Your task to perform on an android device: Open location settings Image 0: 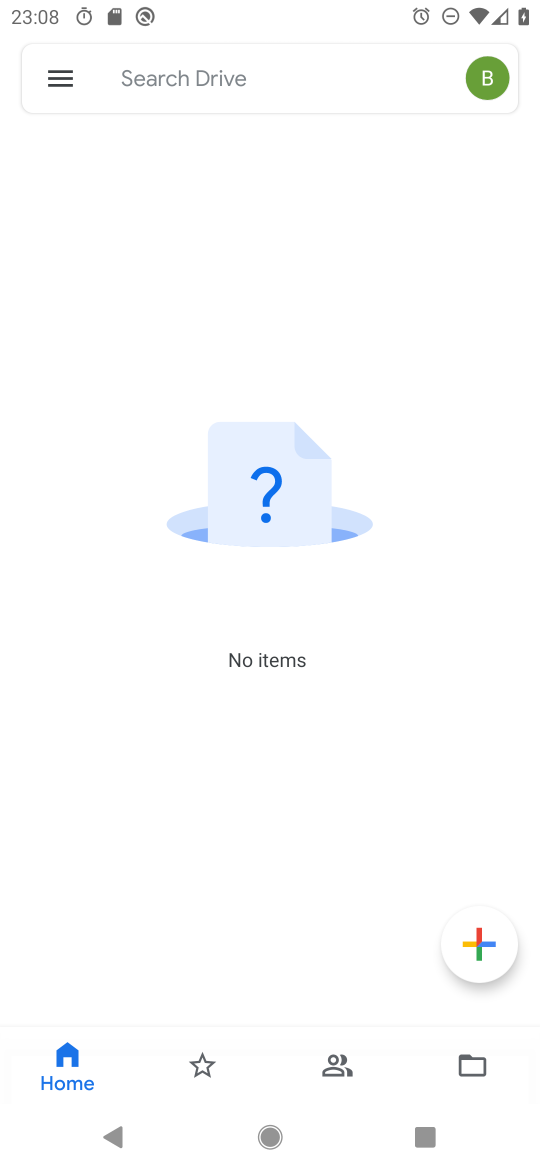
Step 0: drag from (248, 894) to (339, 536)
Your task to perform on an android device: Open location settings Image 1: 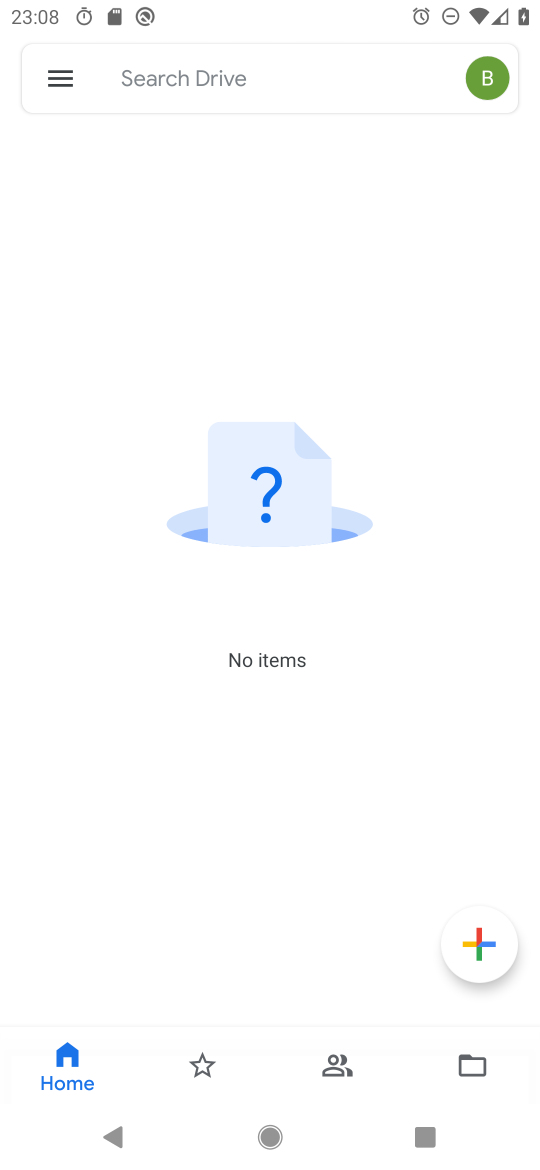
Step 1: press home button
Your task to perform on an android device: Open location settings Image 2: 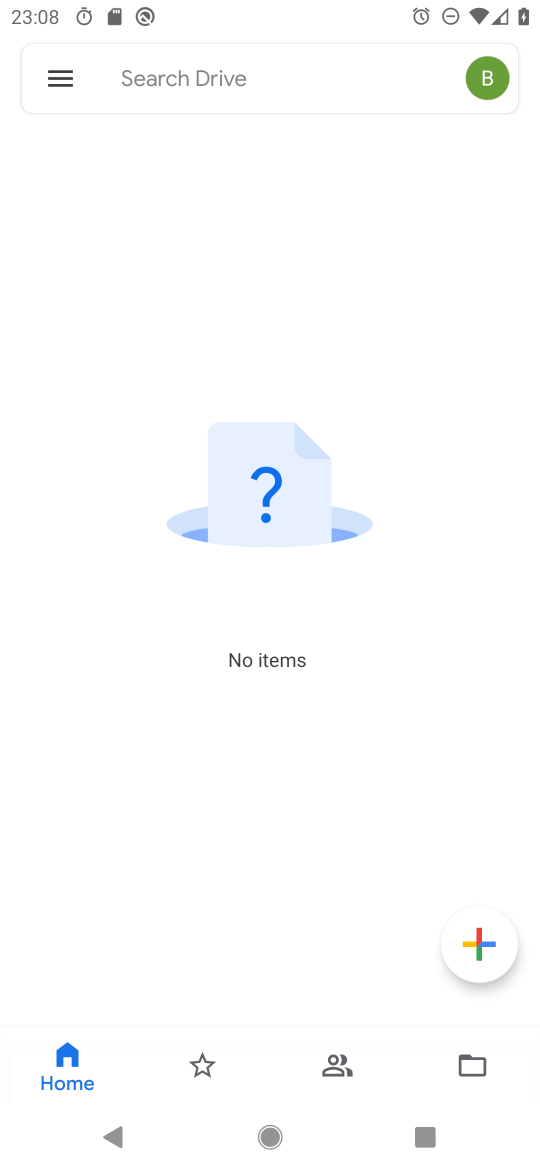
Step 2: drag from (278, 925) to (409, 82)
Your task to perform on an android device: Open location settings Image 3: 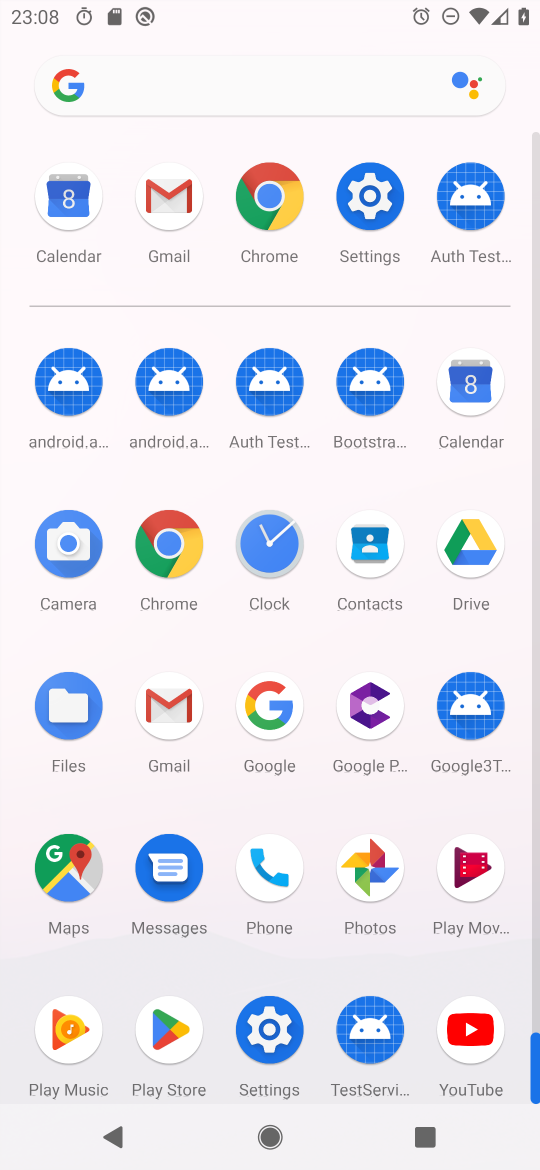
Step 3: drag from (276, 901) to (269, 155)
Your task to perform on an android device: Open location settings Image 4: 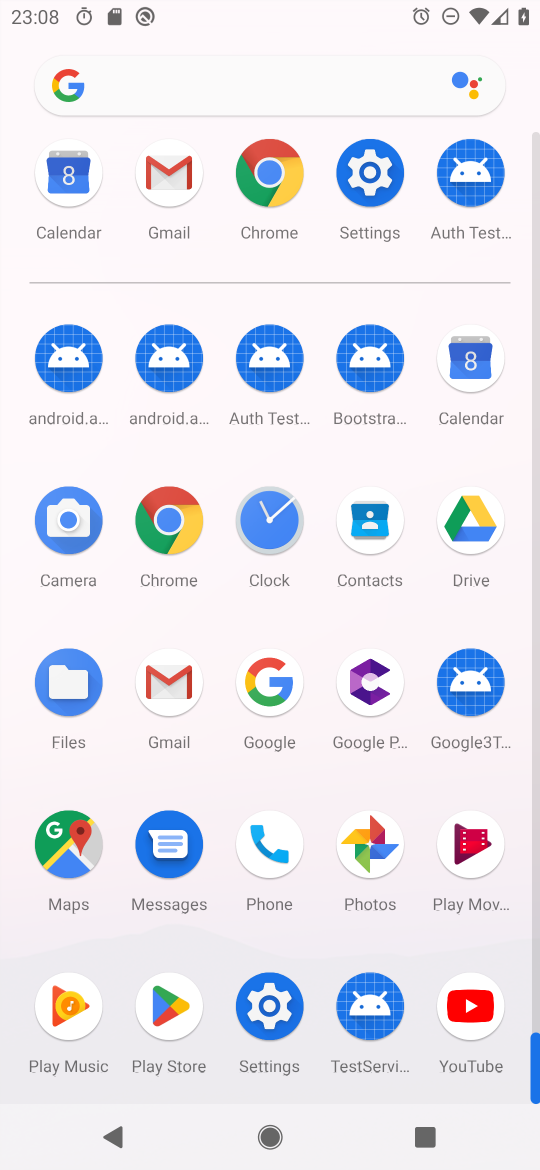
Step 4: click (364, 150)
Your task to perform on an android device: Open location settings Image 5: 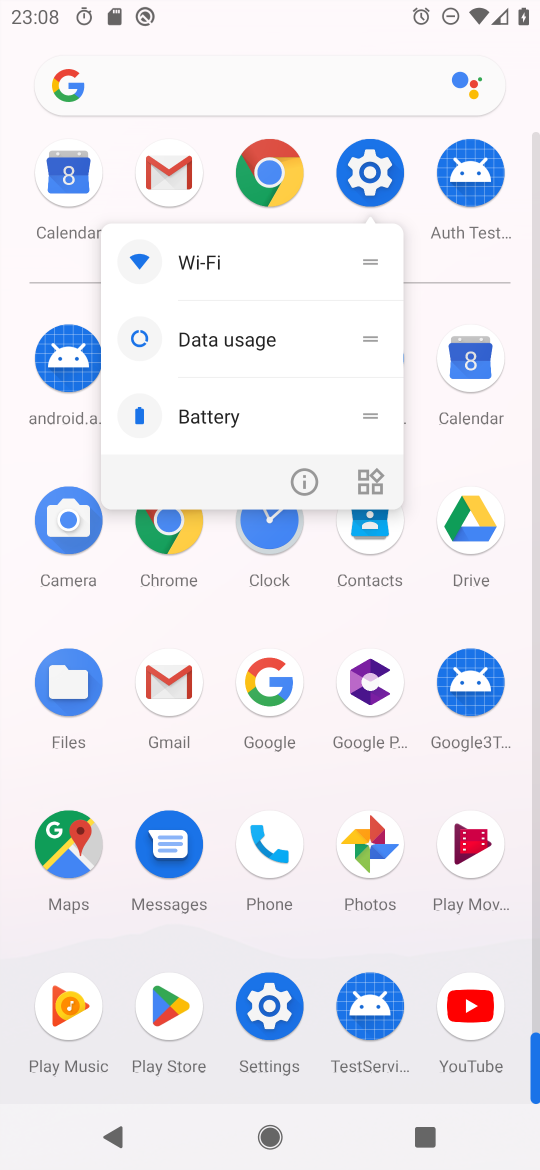
Step 5: click (303, 475)
Your task to perform on an android device: Open location settings Image 6: 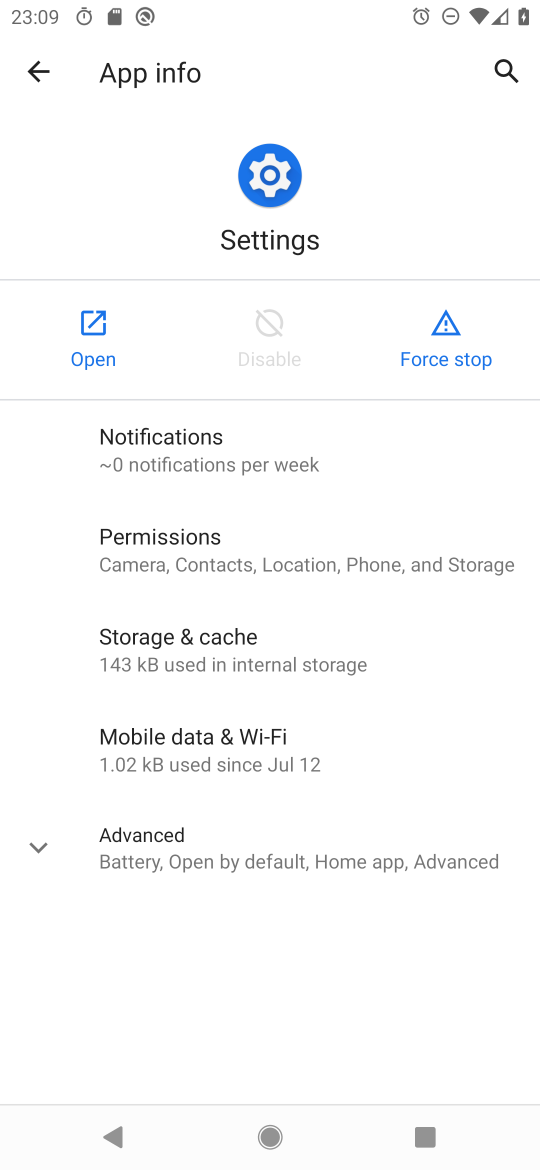
Step 6: click (72, 356)
Your task to perform on an android device: Open location settings Image 7: 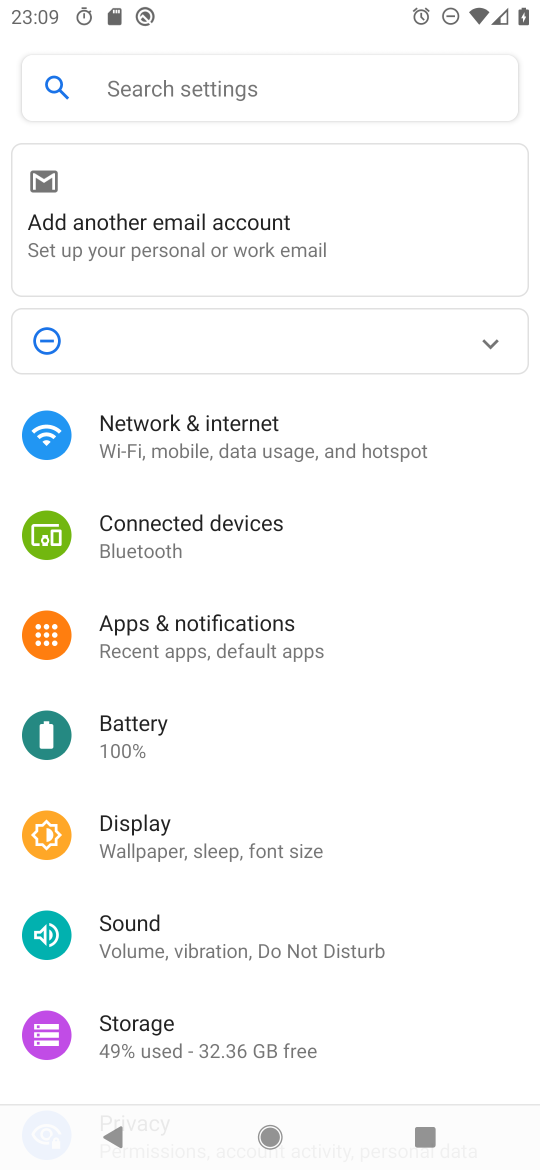
Step 7: drag from (156, 976) to (232, 14)
Your task to perform on an android device: Open location settings Image 8: 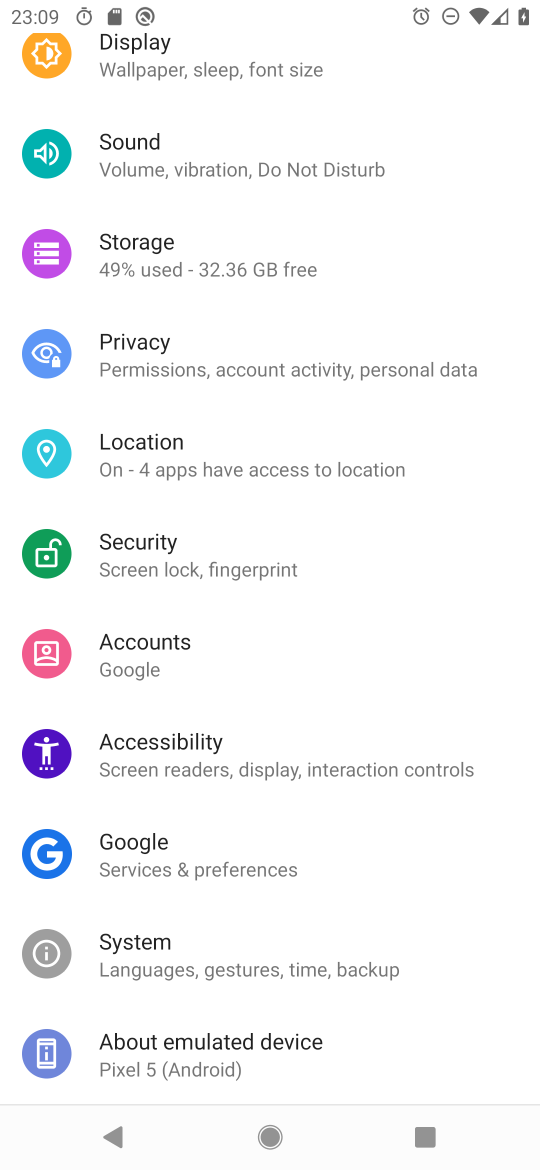
Step 8: click (212, 448)
Your task to perform on an android device: Open location settings Image 9: 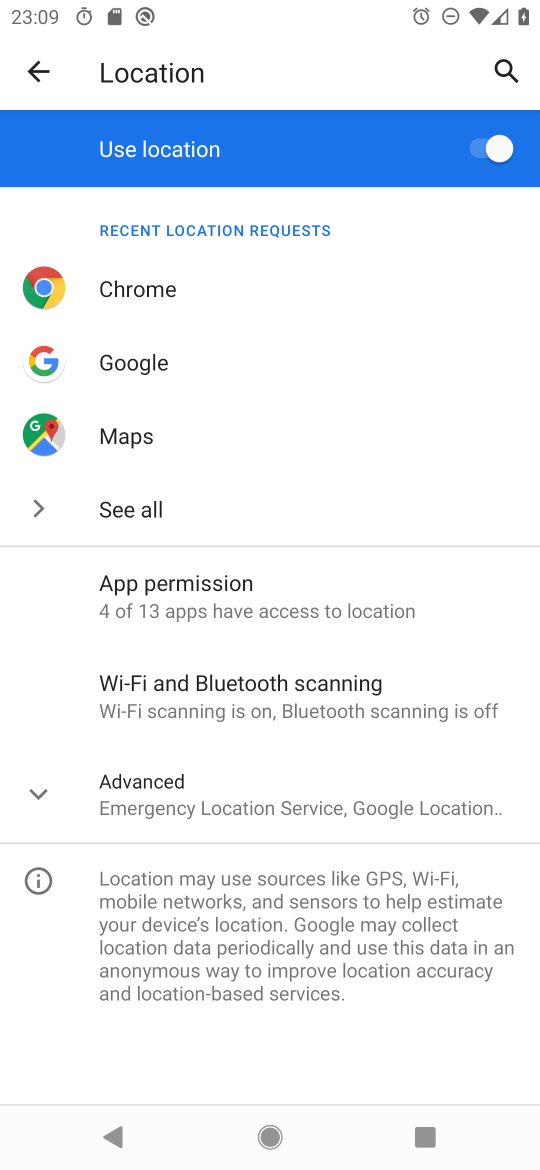
Step 9: task complete